Your task to perform on an android device: show emergency info Image 0: 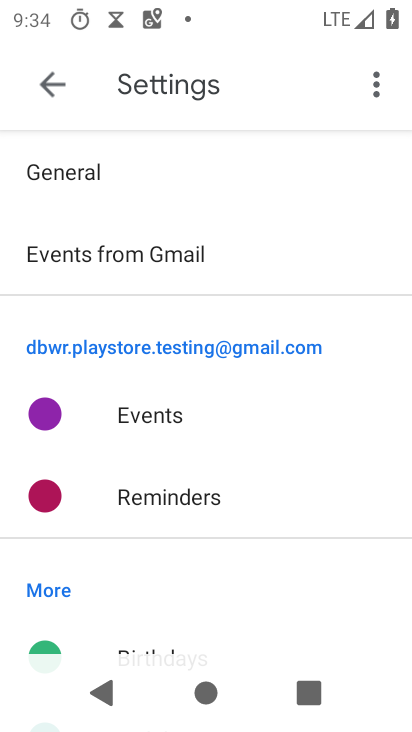
Step 0: press home button
Your task to perform on an android device: show emergency info Image 1: 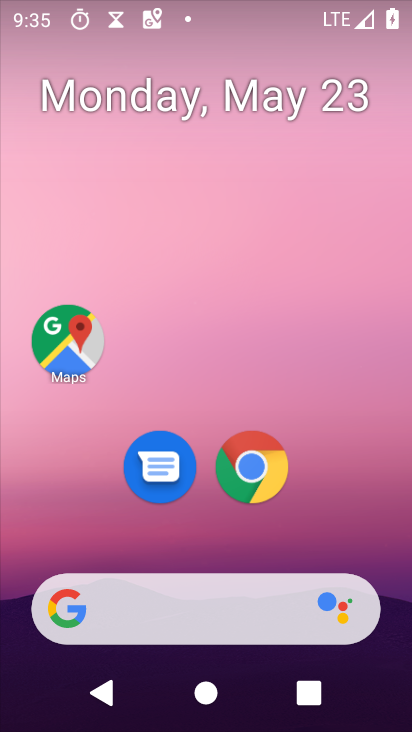
Step 1: drag from (308, 431) to (253, 49)
Your task to perform on an android device: show emergency info Image 2: 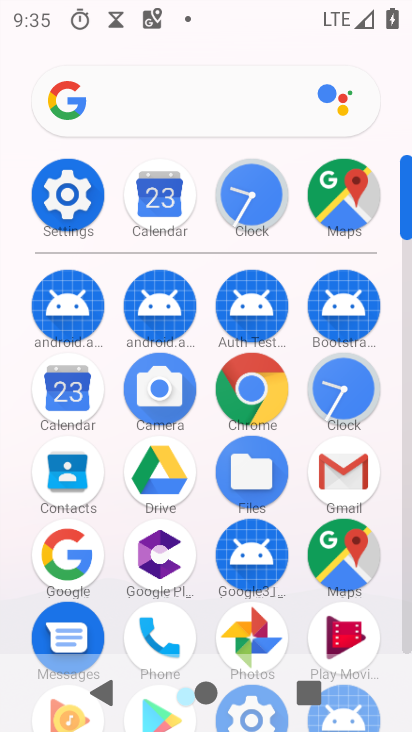
Step 2: click (68, 200)
Your task to perform on an android device: show emergency info Image 3: 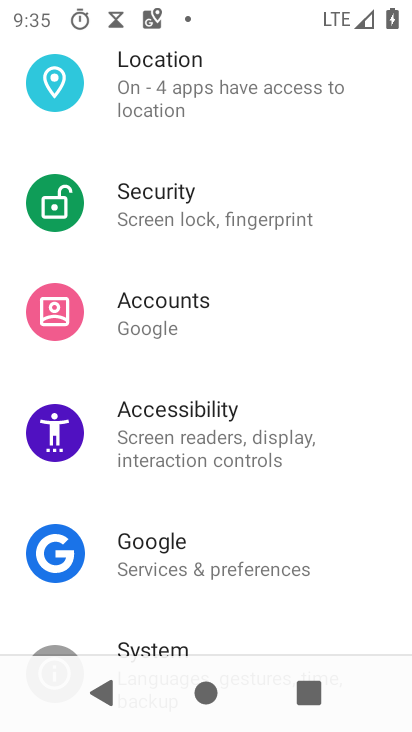
Step 3: drag from (238, 540) to (244, 124)
Your task to perform on an android device: show emergency info Image 4: 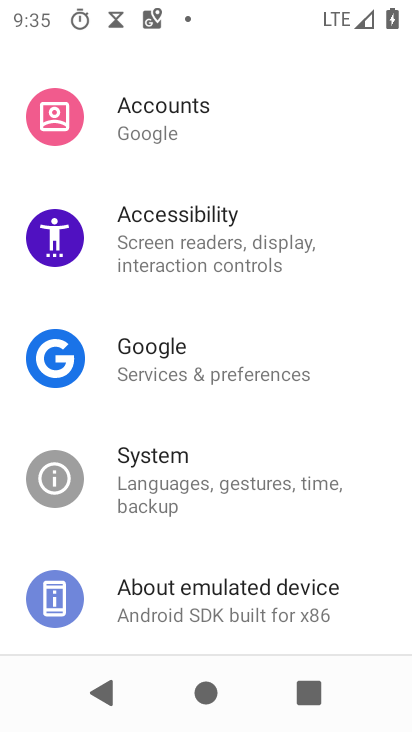
Step 4: click (219, 590)
Your task to perform on an android device: show emergency info Image 5: 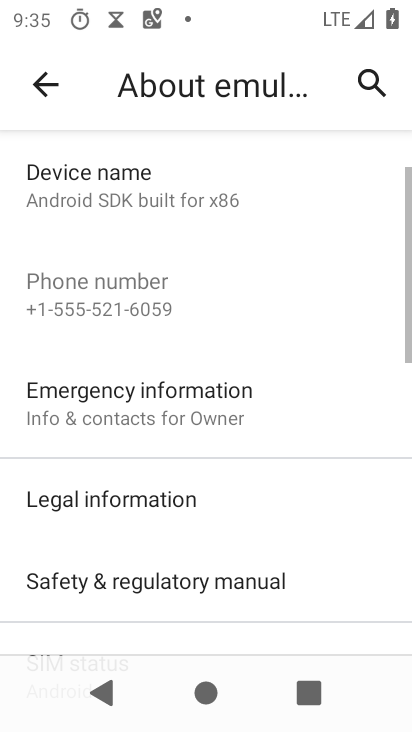
Step 5: drag from (182, 530) to (180, 212)
Your task to perform on an android device: show emergency info Image 6: 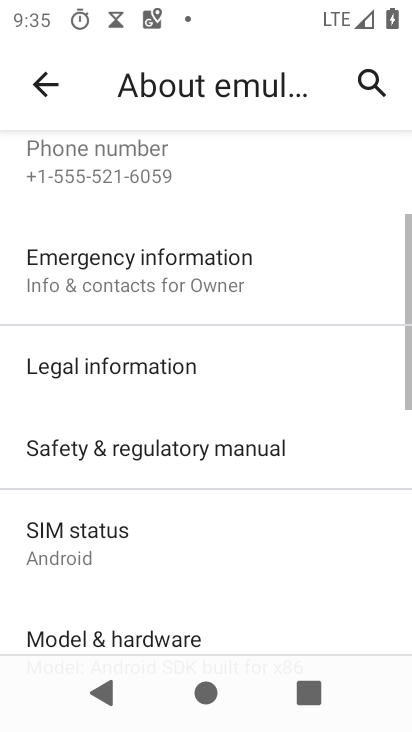
Step 6: click (174, 283)
Your task to perform on an android device: show emergency info Image 7: 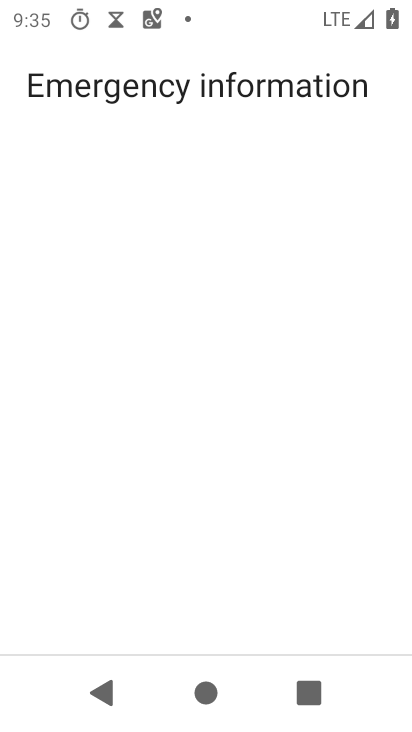
Step 7: task complete